Your task to perform on an android device: Show me popular games on the Play Store Image 0: 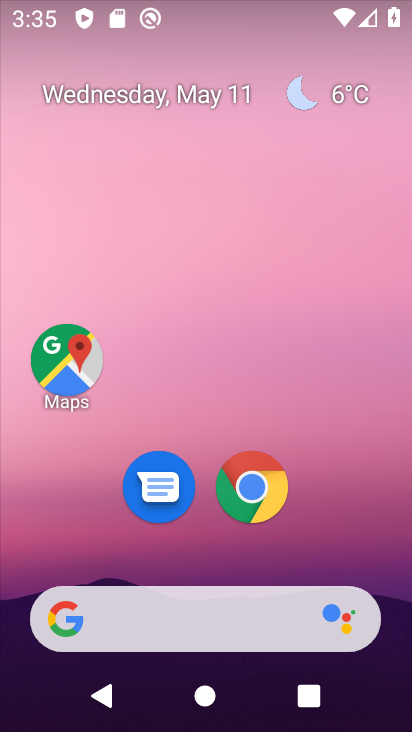
Step 0: drag from (225, 531) to (236, 157)
Your task to perform on an android device: Show me popular games on the Play Store Image 1: 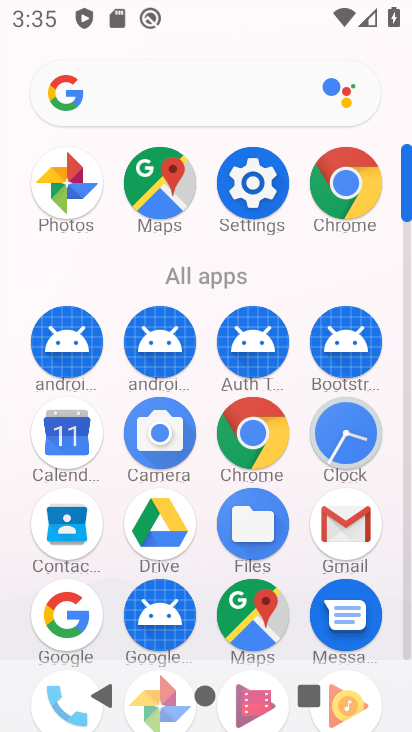
Step 1: click (196, 228)
Your task to perform on an android device: Show me popular games on the Play Store Image 2: 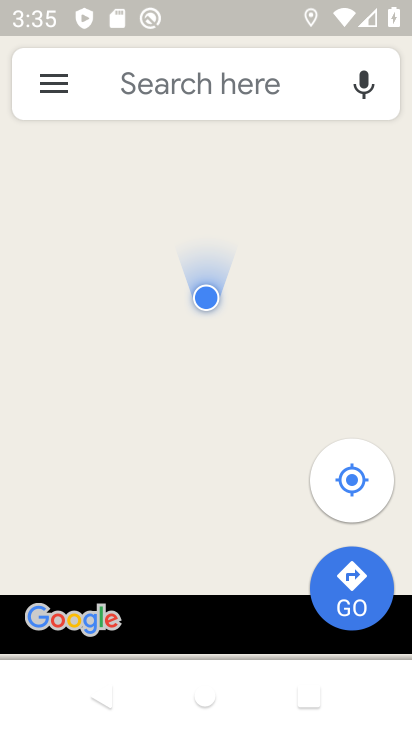
Step 2: press back button
Your task to perform on an android device: Show me popular games on the Play Store Image 3: 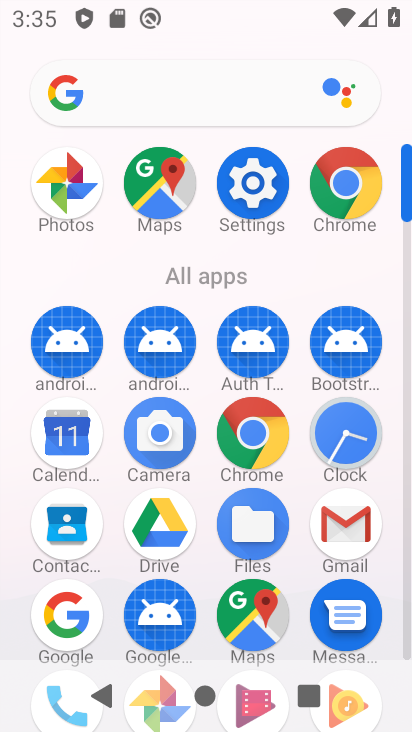
Step 3: drag from (323, 406) to (340, 306)
Your task to perform on an android device: Show me popular games on the Play Store Image 4: 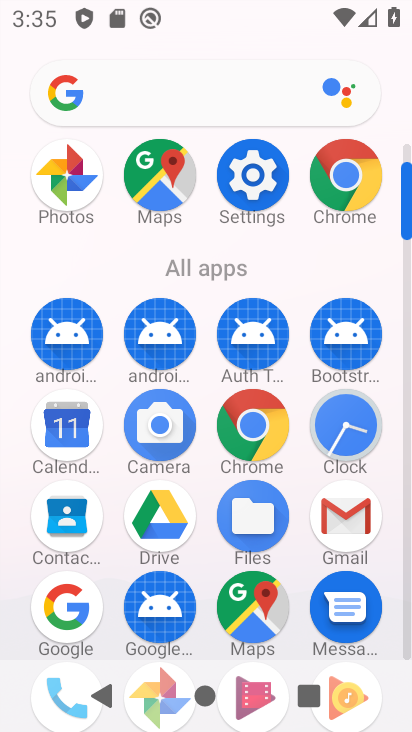
Step 4: drag from (185, 562) to (255, 286)
Your task to perform on an android device: Show me popular games on the Play Store Image 5: 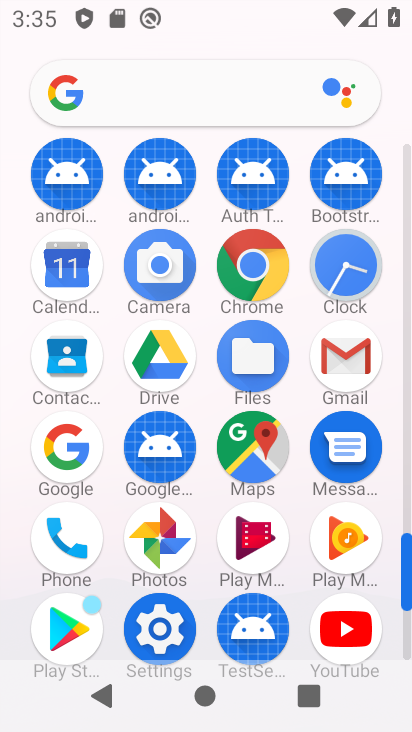
Step 5: click (69, 604)
Your task to perform on an android device: Show me popular games on the Play Store Image 6: 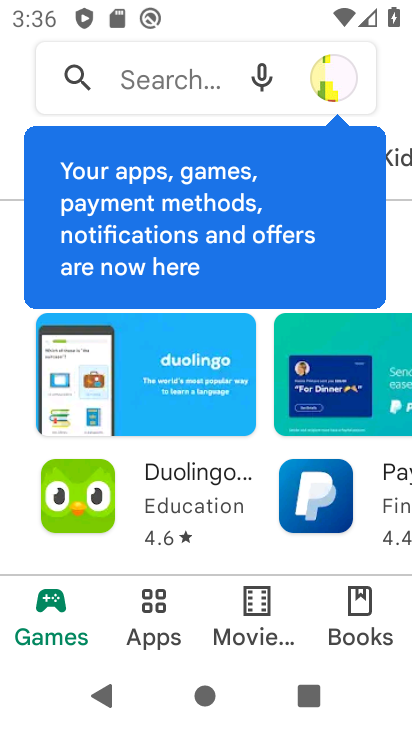
Step 6: task complete